Your task to perform on an android device: change timer sound Image 0: 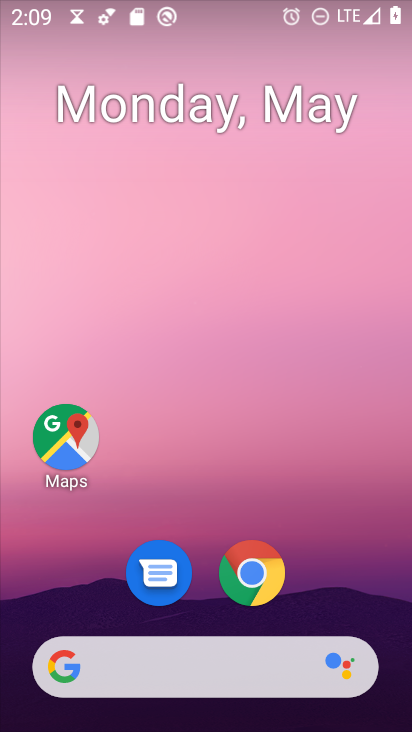
Step 0: drag from (216, 652) to (230, 94)
Your task to perform on an android device: change timer sound Image 1: 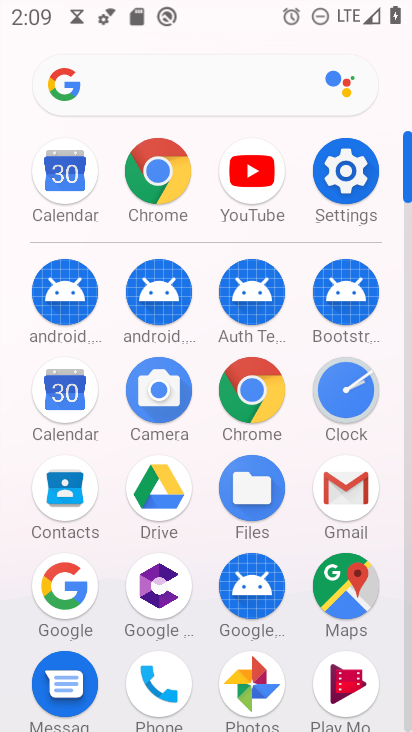
Step 1: click (350, 167)
Your task to perform on an android device: change timer sound Image 2: 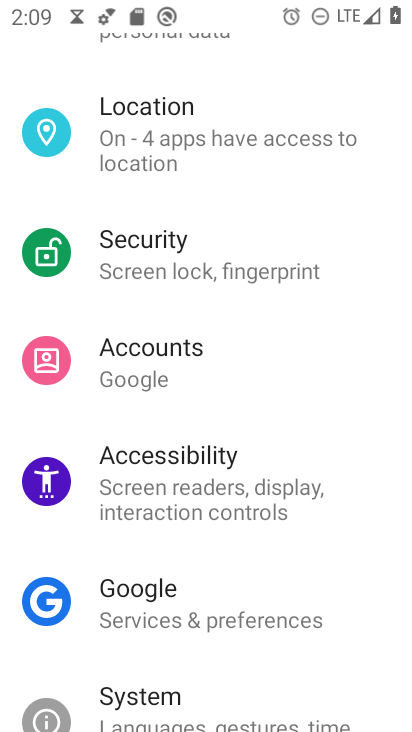
Step 2: drag from (280, 378) to (281, 527)
Your task to perform on an android device: change timer sound Image 3: 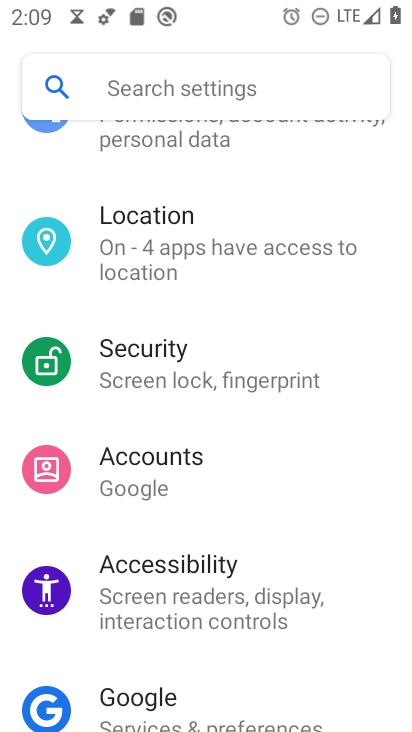
Step 3: press home button
Your task to perform on an android device: change timer sound Image 4: 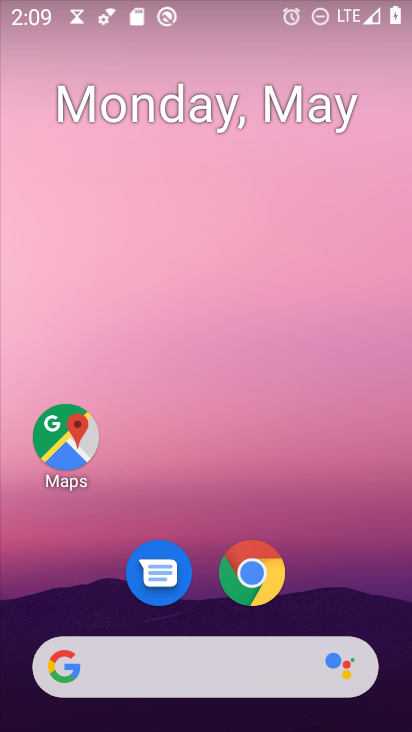
Step 4: drag from (219, 644) to (249, 66)
Your task to perform on an android device: change timer sound Image 5: 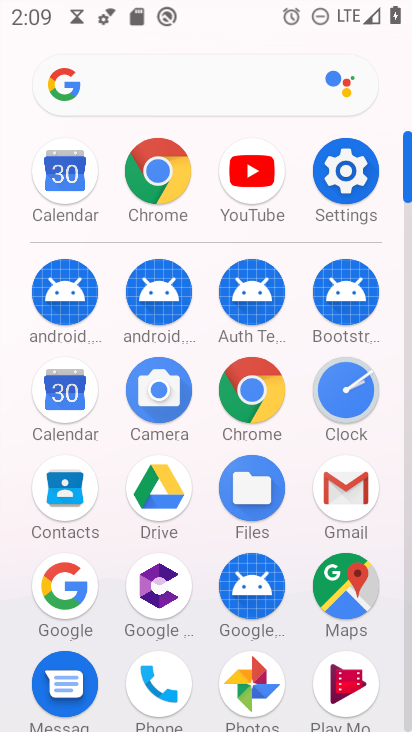
Step 5: click (337, 412)
Your task to perform on an android device: change timer sound Image 6: 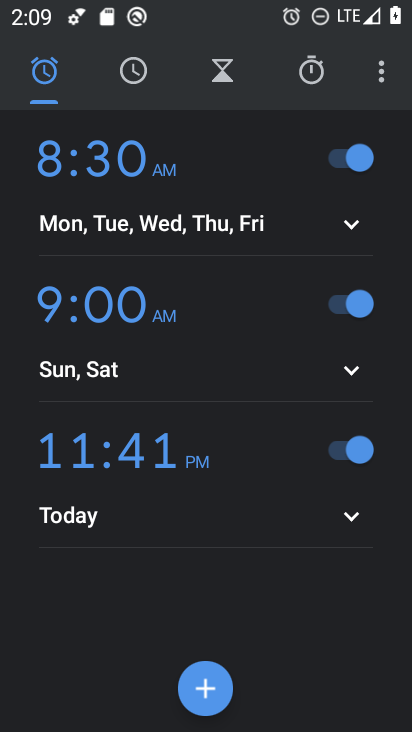
Step 6: drag from (383, 73) to (282, 145)
Your task to perform on an android device: change timer sound Image 7: 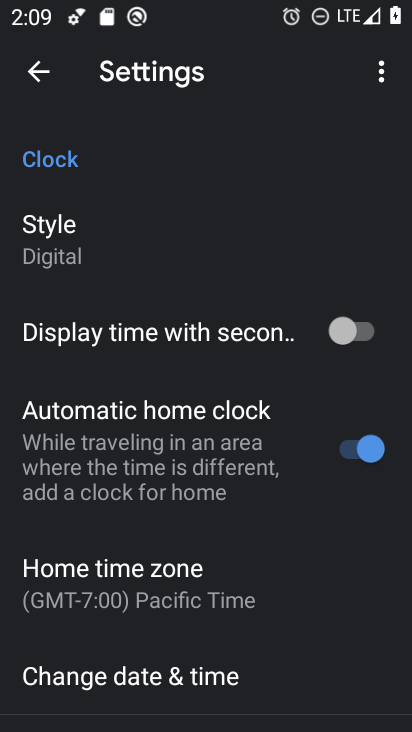
Step 7: drag from (328, 635) to (353, 185)
Your task to perform on an android device: change timer sound Image 8: 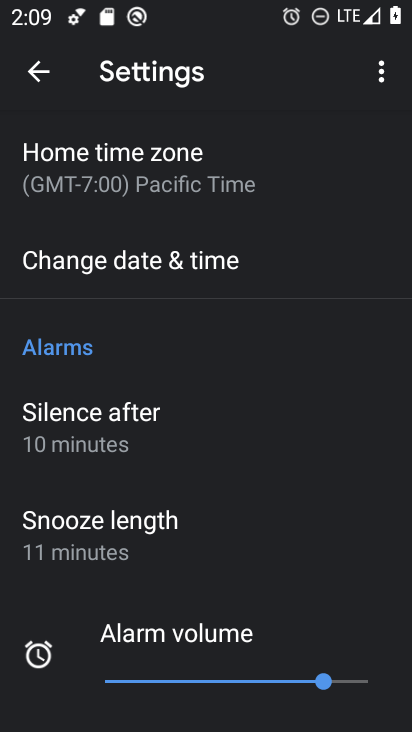
Step 8: drag from (208, 570) to (289, 22)
Your task to perform on an android device: change timer sound Image 9: 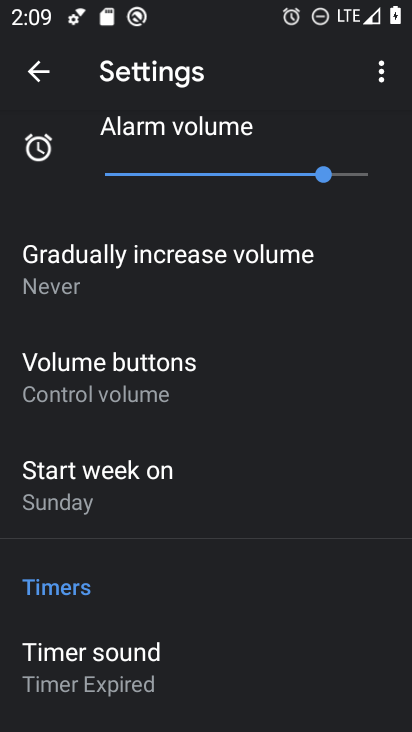
Step 9: click (195, 651)
Your task to perform on an android device: change timer sound Image 10: 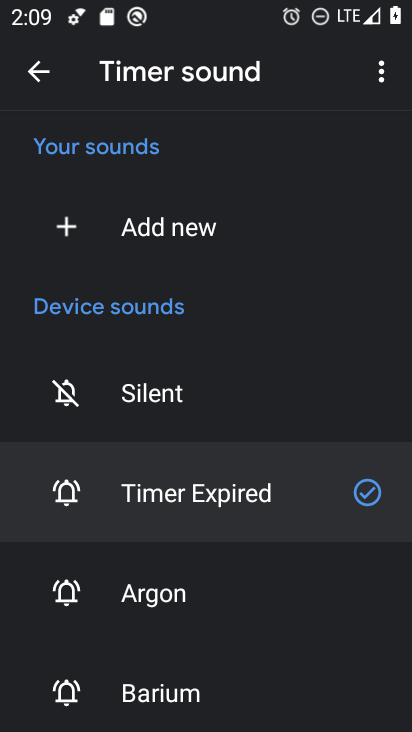
Step 10: click (228, 584)
Your task to perform on an android device: change timer sound Image 11: 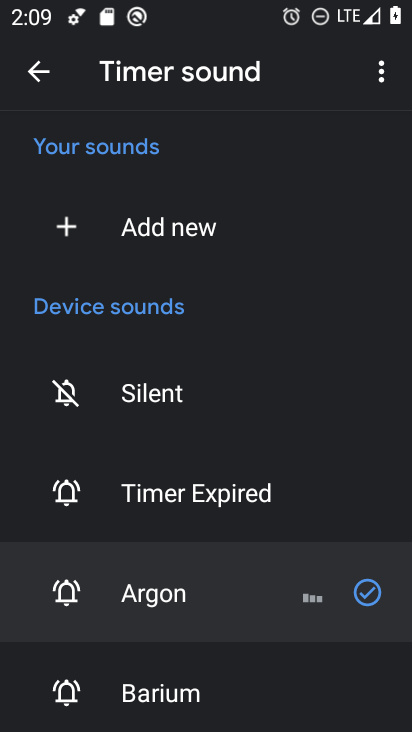
Step 11: task complete